Your task to perform on an android device: add a contact Image 0: 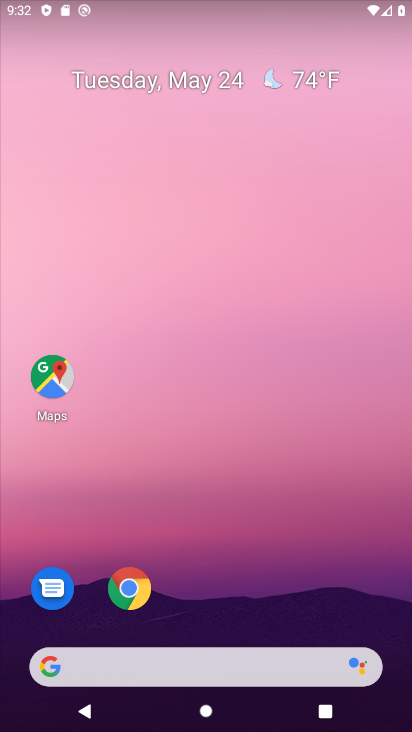
Step 0: drag from (315, 482) to (262, 187)
Your task to perform on an android device: add a contact Image 1: 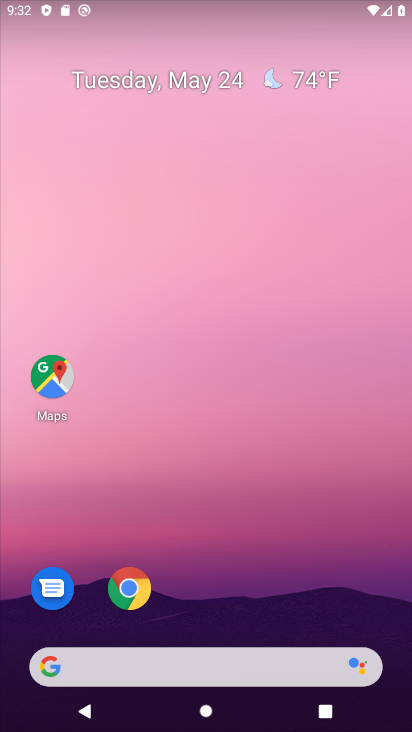
Step 1: drag from (208, 610) to (285, 113)
Your task to perform on an android device: add a contact Image 2: 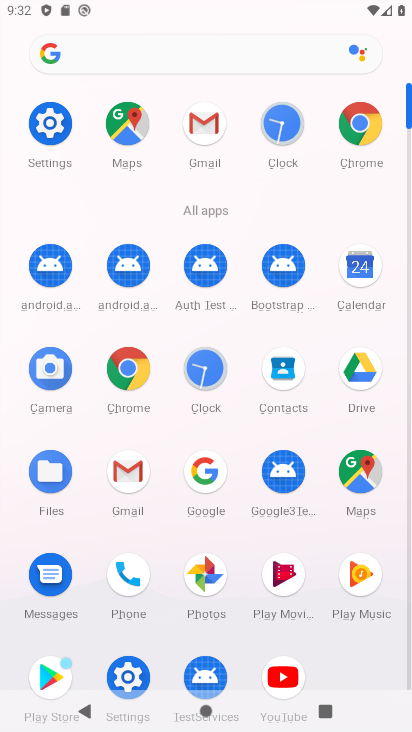
Step 2: click (298, 371)
Your task to perform on an android device: add a contact Image 3: 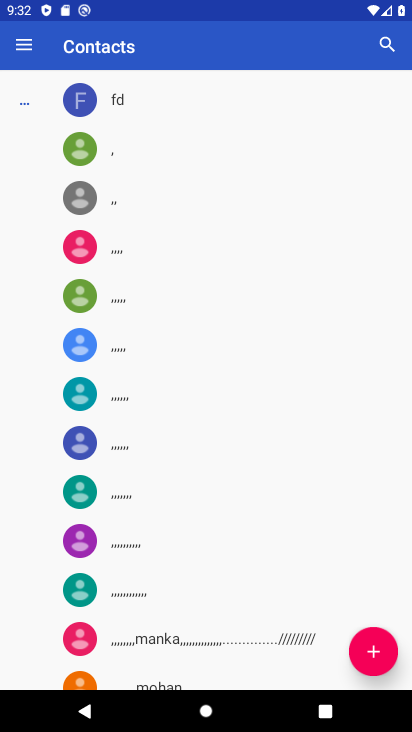
Step 3: click (283, 373)
Your task to perform on an android device: add a contact Image 4: 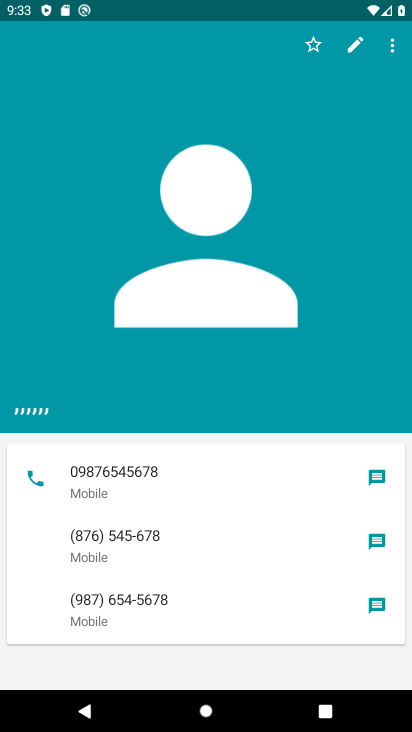
Step 4: press back button
Your task to perform on an android device: add a contact Image 5: 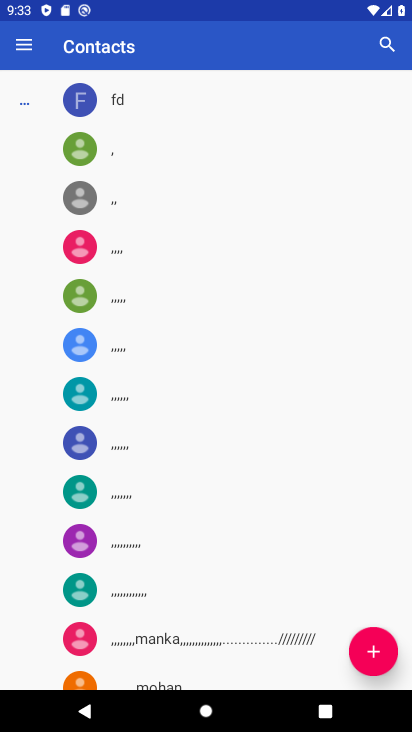
Step 5: click (386, 641)
Your task to perform on an android device: add a contact Image 6: 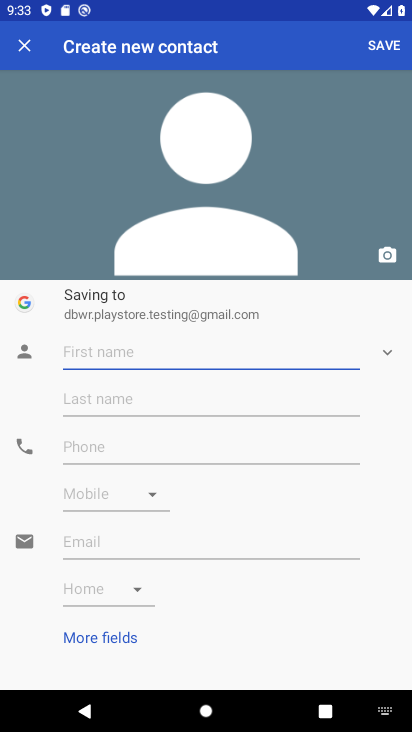
Step 6: type "chabdooo"
Your task to perform on an android device: add a contact Image 7: 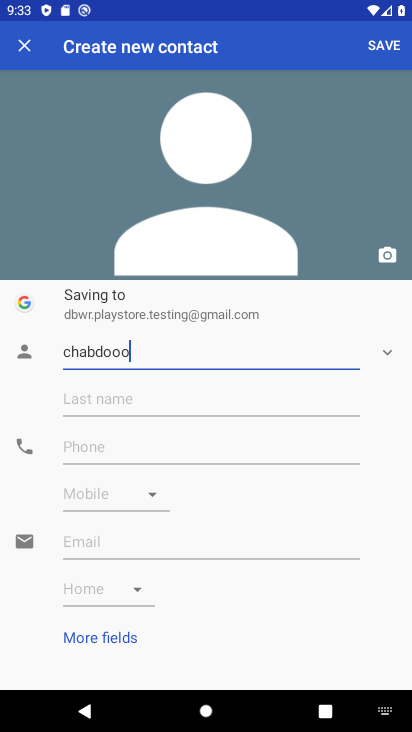
Step 7: click (99, 457)
Your task to perform on an android device: add a contact Image 8: 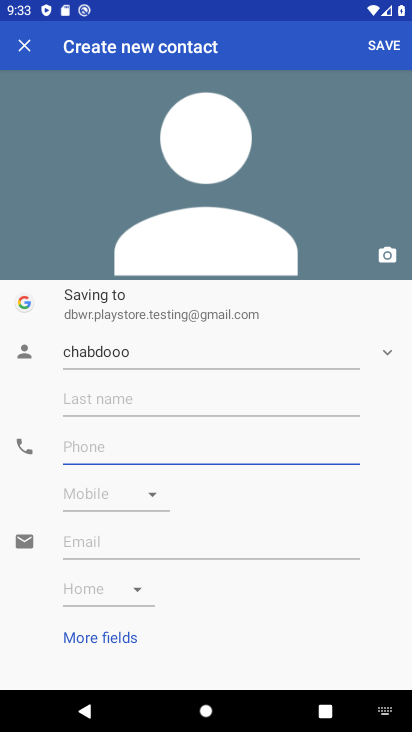
Step 8: type "0987654324567u8"
Your task to perform on an android device: add a contact Image 9: 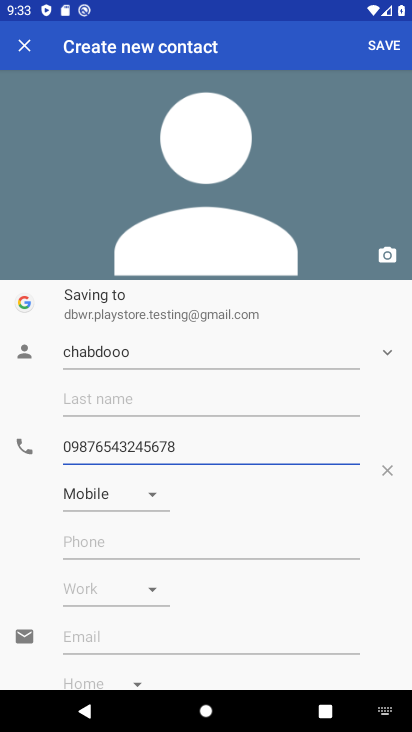
Step 9: click (360, 33)
Your task to perform on an android device: add a contact Image 10: 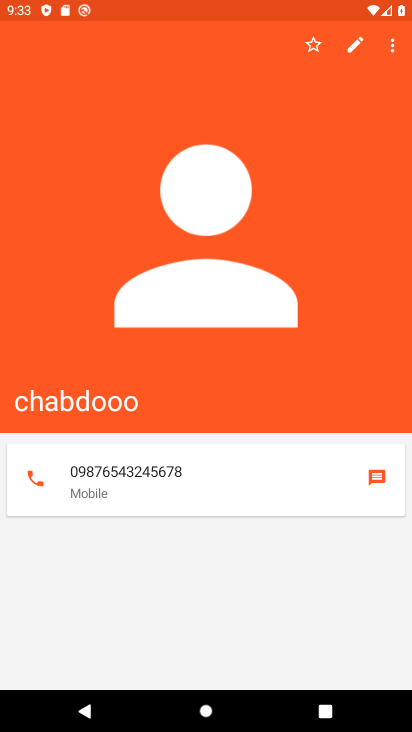
Step 10: task complete